Your task to perform on an android device: Open settings Image 0: 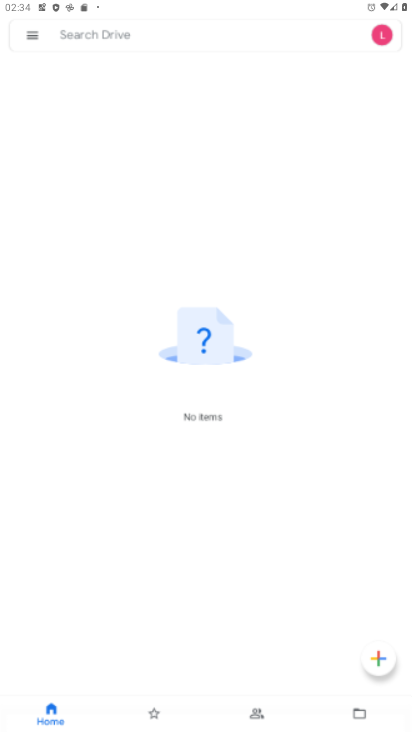
Step 0: press home button
Your task to perform on an android device: Open settings Image 1: 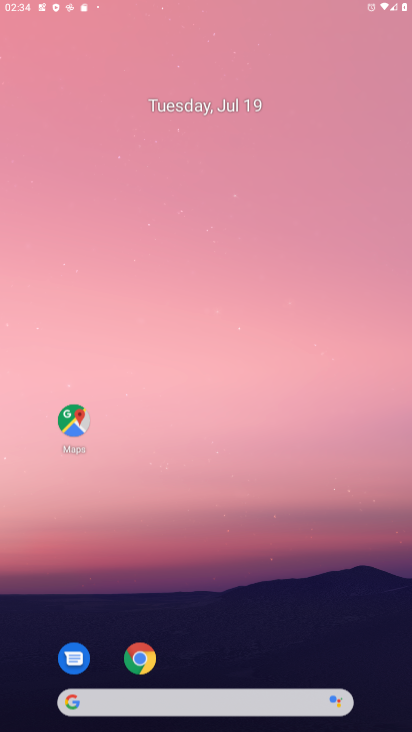
Step 1: drag from (286, 610) to (340, 73)
Your task to perform on an android device: Open settings Image 2: 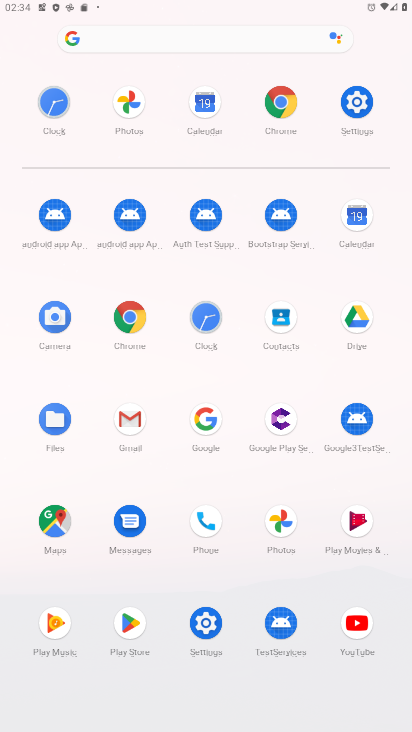
Step 2: click (336, 110)
Your task to perform on an android device: Open settings Image 3: 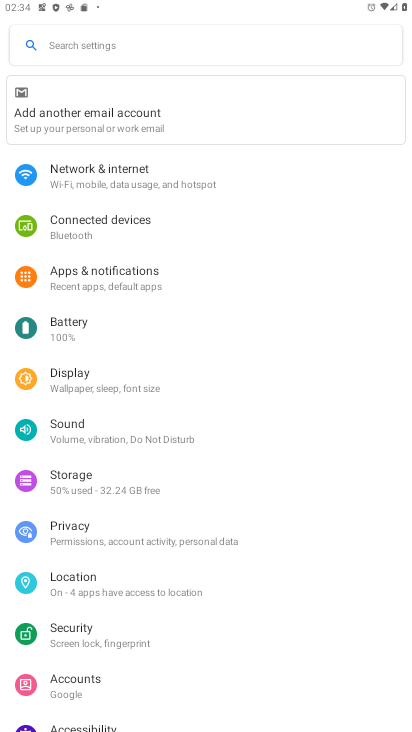
Step 3: task complete